Your task to perform on an android device: Open calendar and show me the first week of next month Image 0: 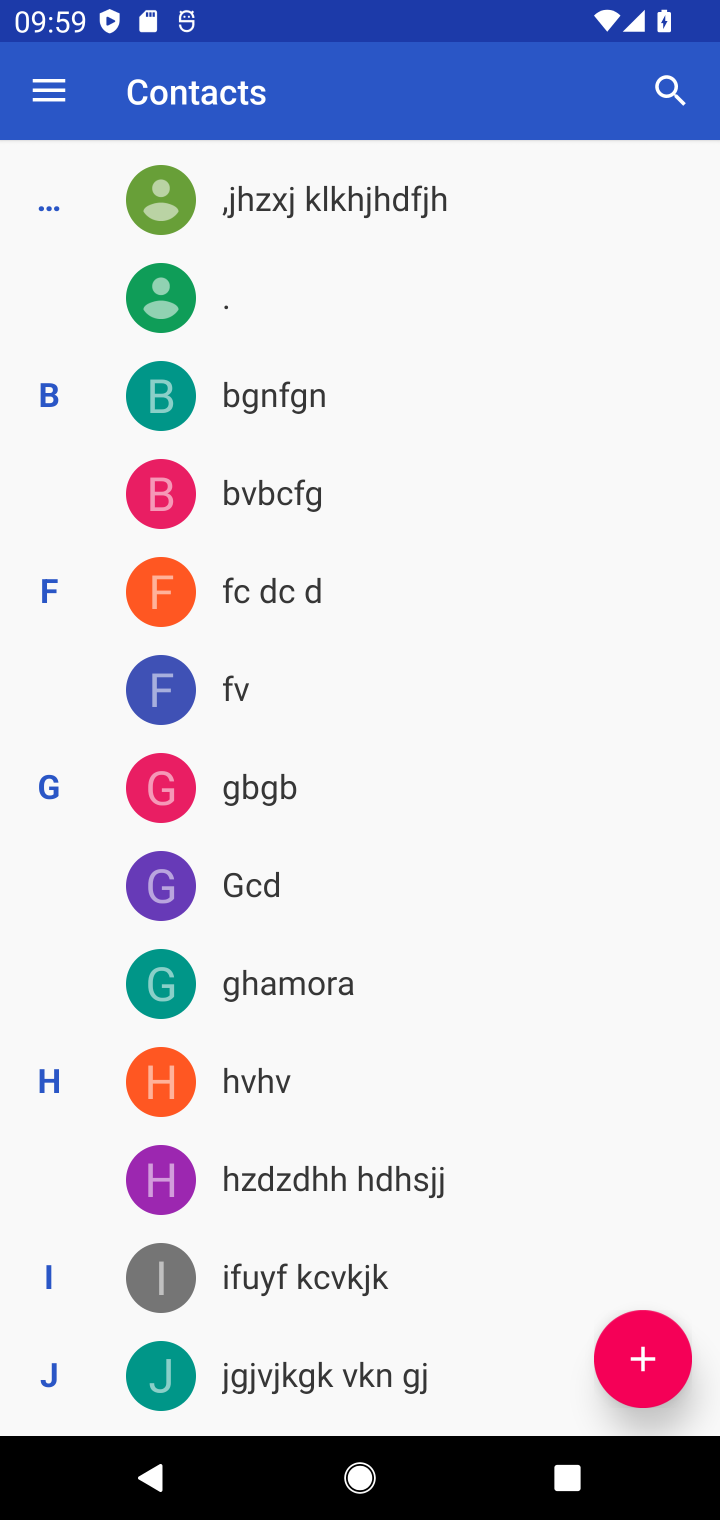
Step 0: press home button
Your task to perform on an android device: Open calendar and show me the first week of next month Image 1: 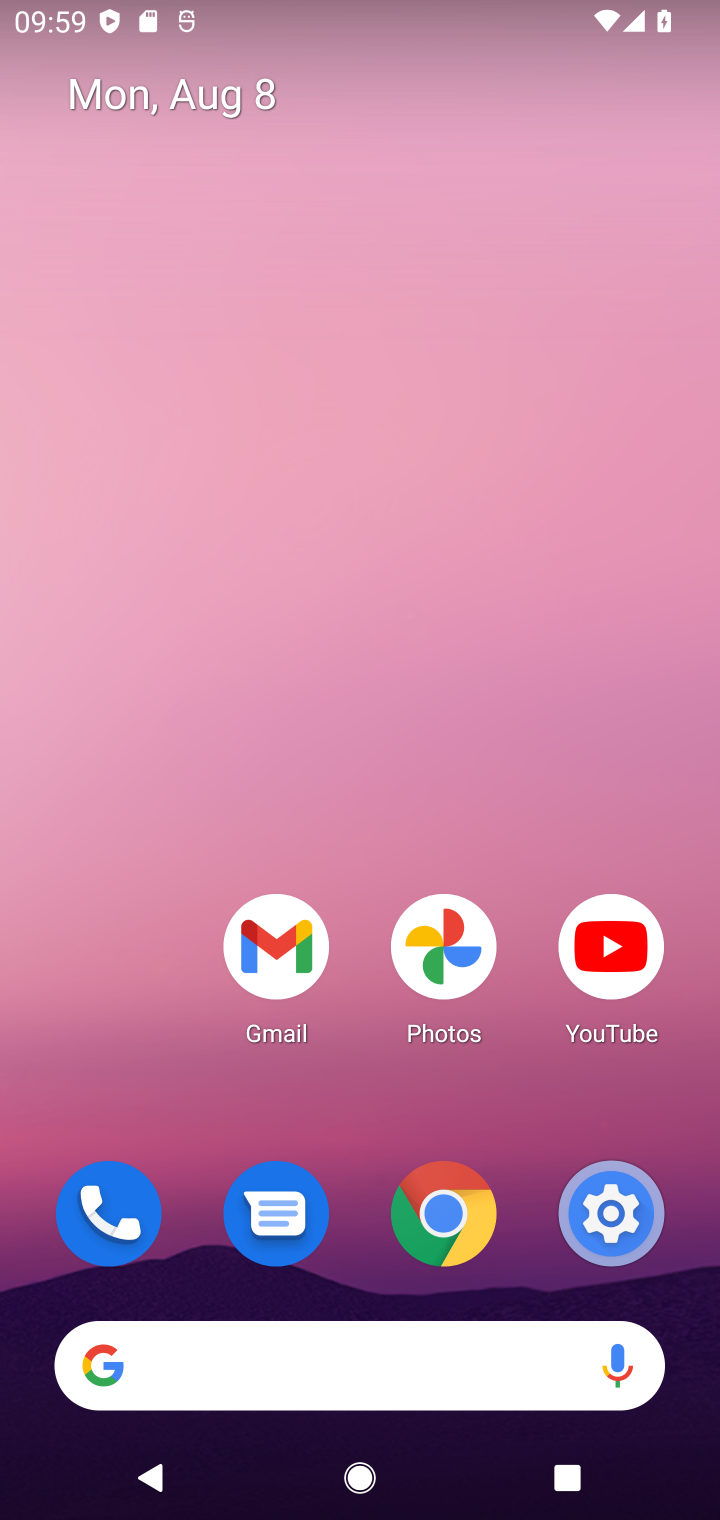
Step 1: drag from (400, 1126) to (309, 453)
Your task to perform on an android device: Open calendar and show me the first week of next month Image 2: 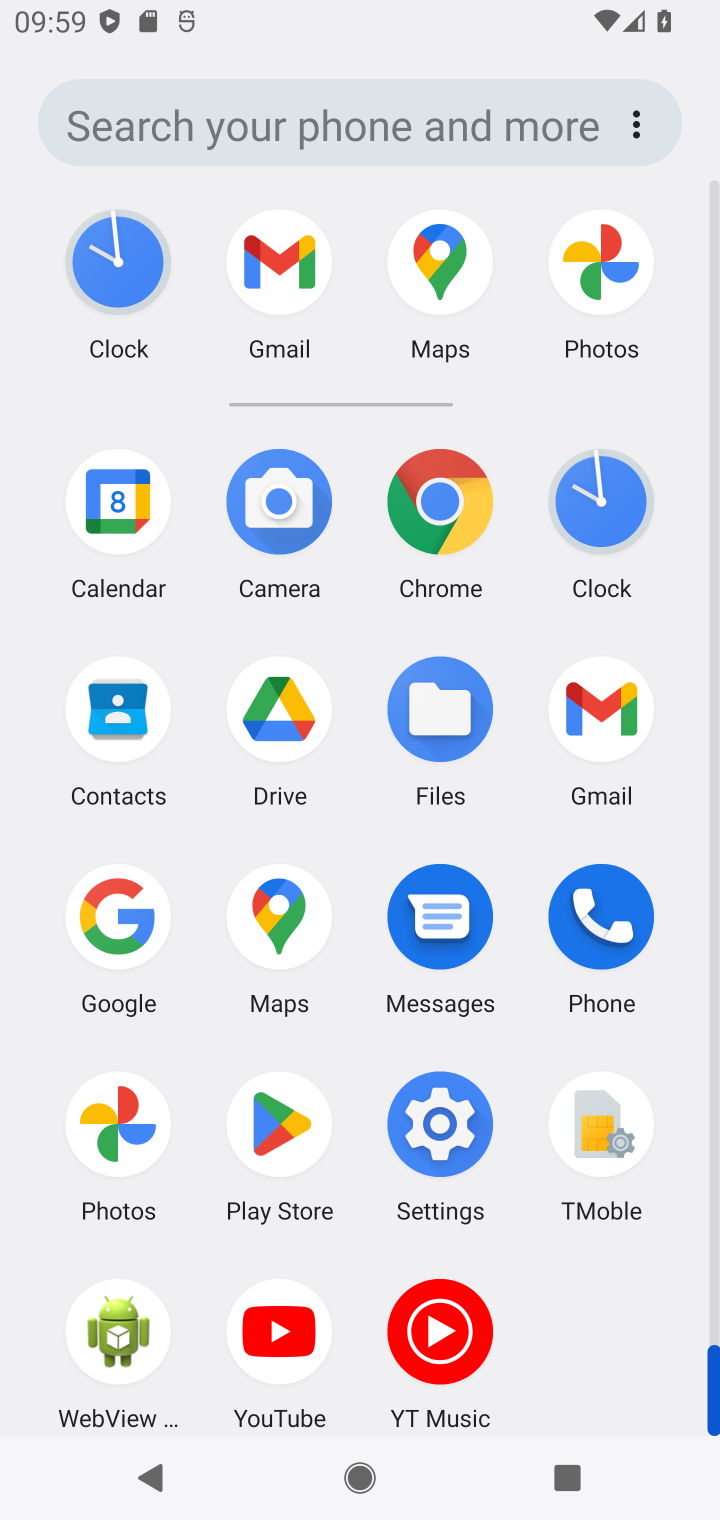
Step 2: click (153, 539)
Your task to perform on an android device: Open calendar and show me the first week of next month Image 3: 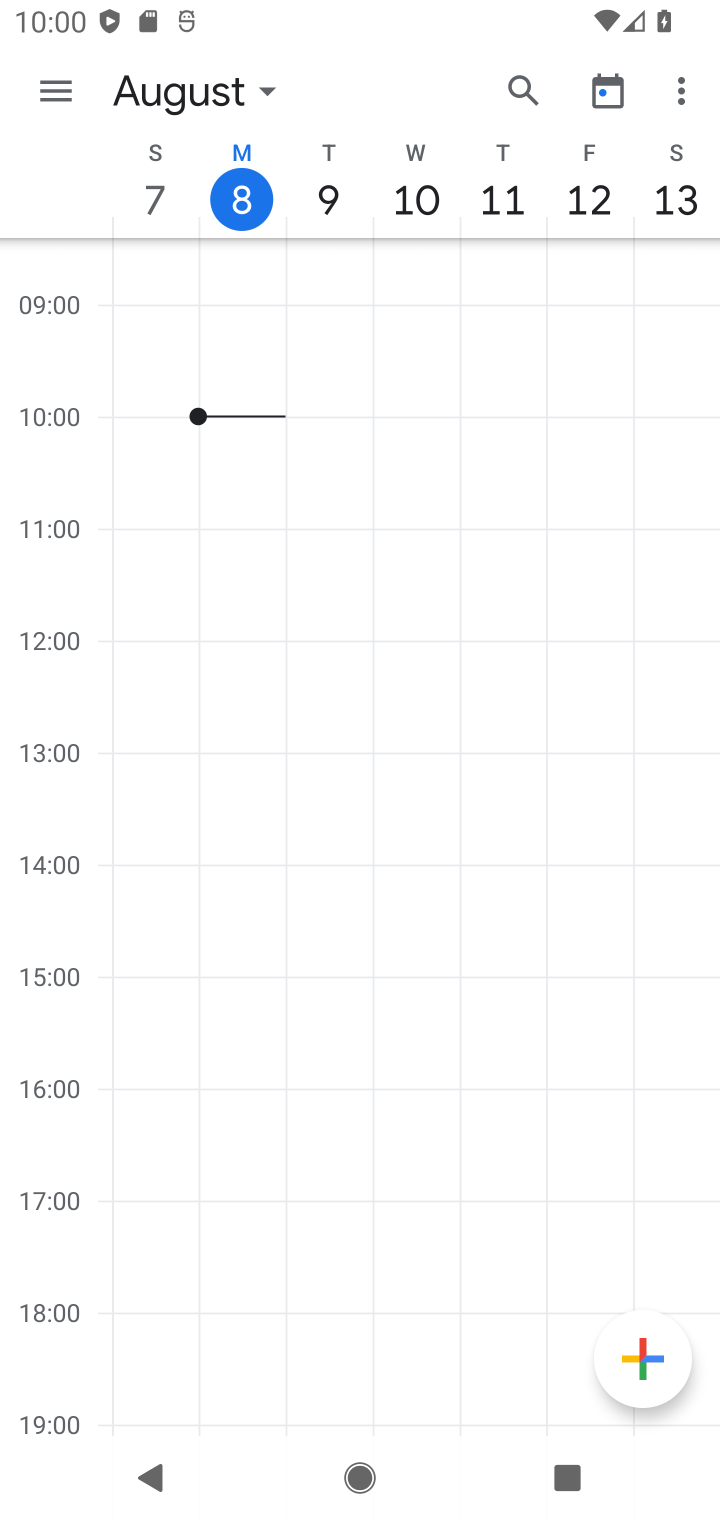
Step 3: click (285, 96)
Your task to perform on an android device: Open calendar and show me the first week of next month Image 4: 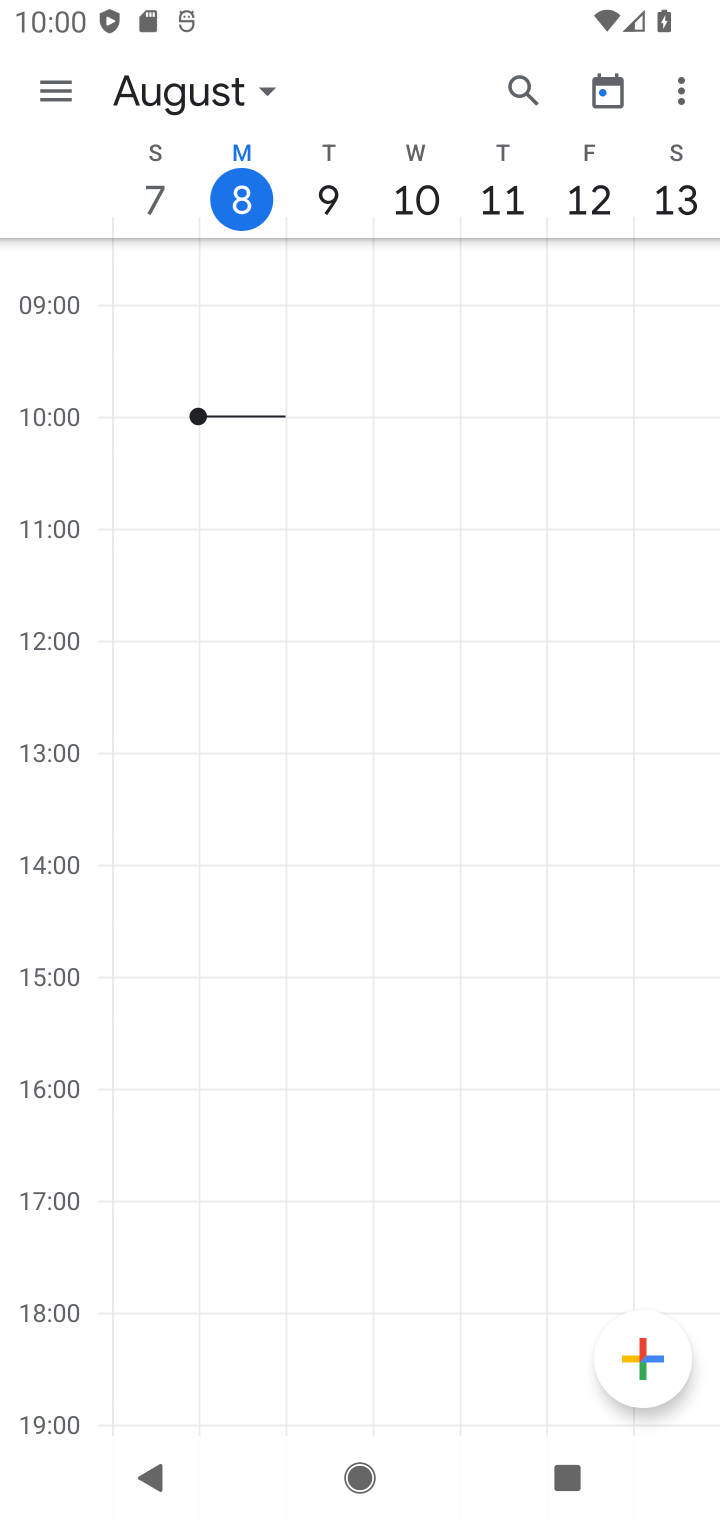
Step 4: click (259, 82)
Your task to perform on an android device: Open calendar and show me the first week of next month Image 5: 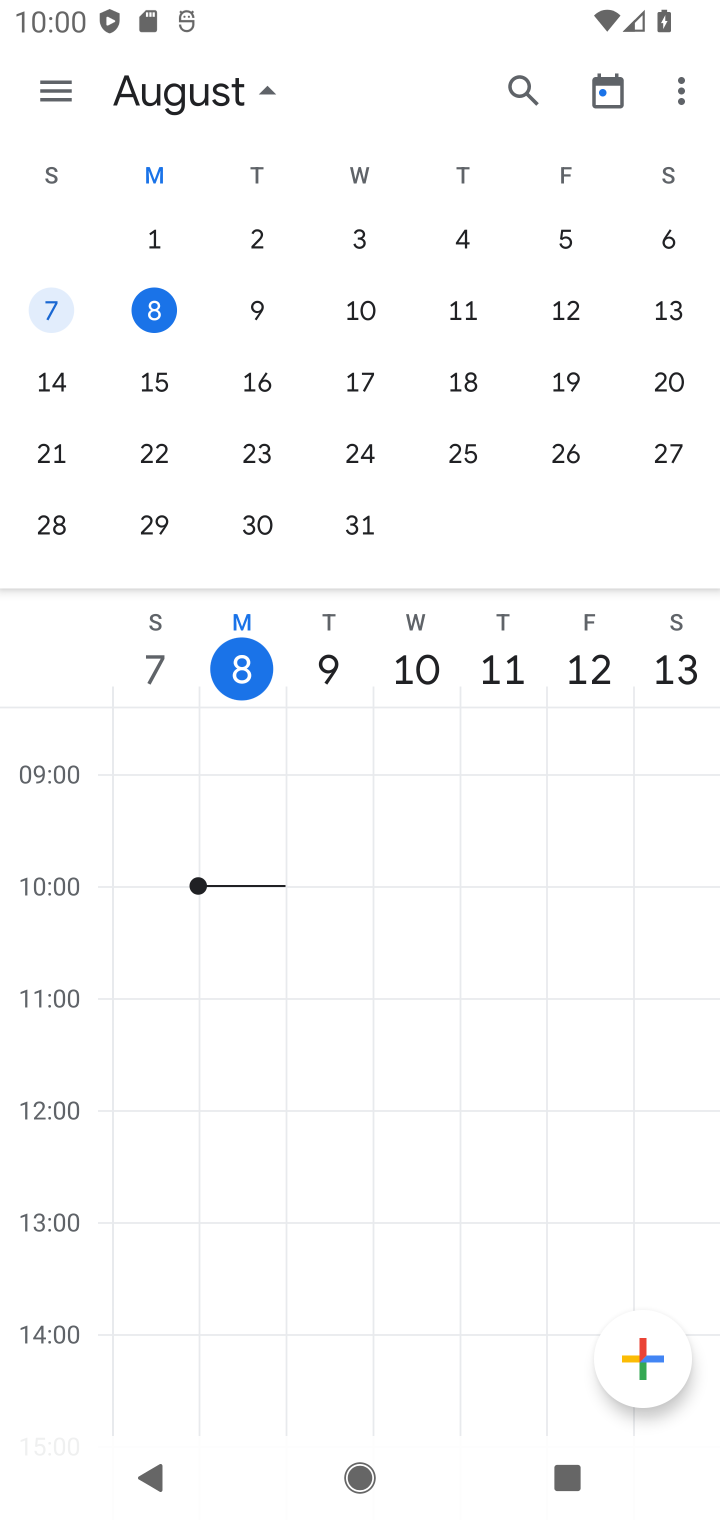
Step 5: drag from (630, 370) to (0, 465)
Your task to perform on an android device: Open calendar and show me the first week of next month Image 6: 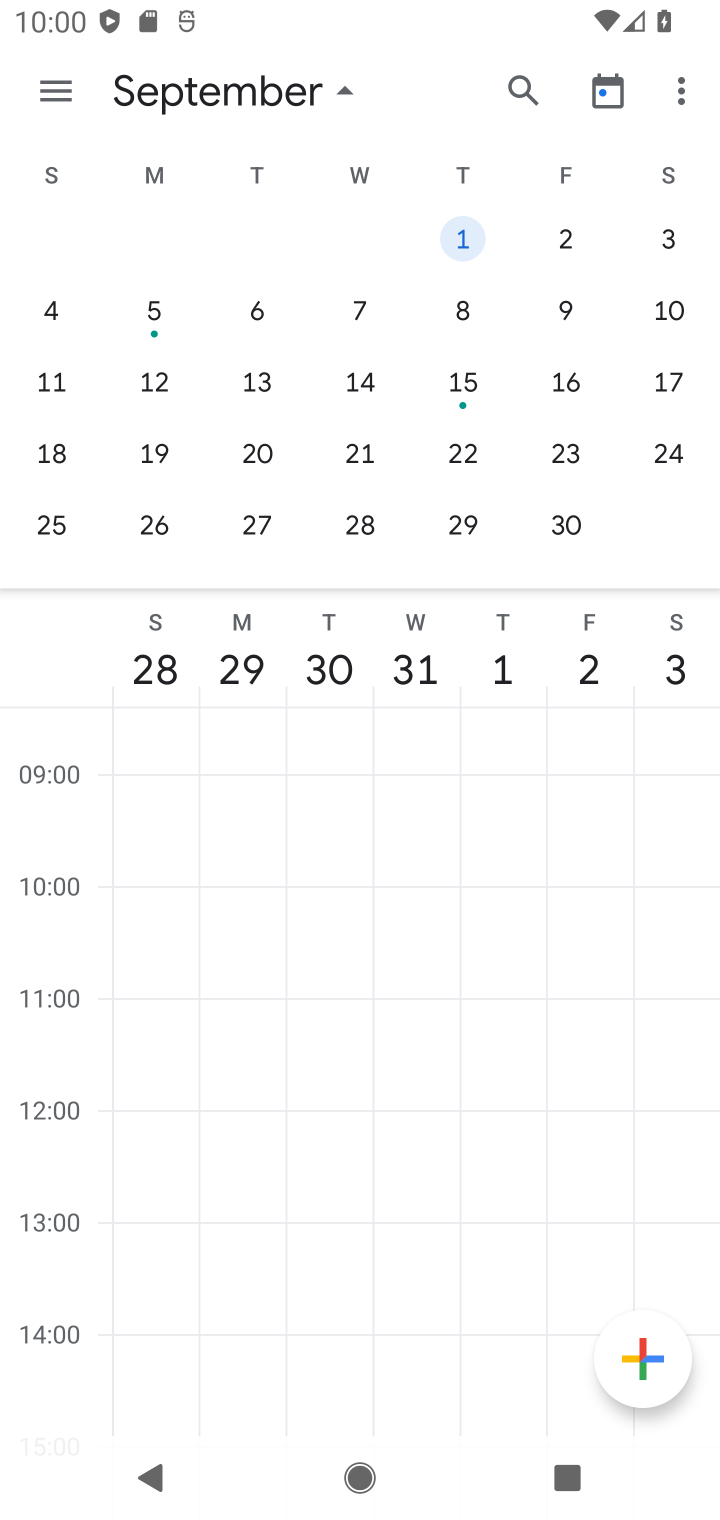
Step 6: click (40, 308)
Your task to perform on an android device: Open calendar and show me the first week of next month Image 7: 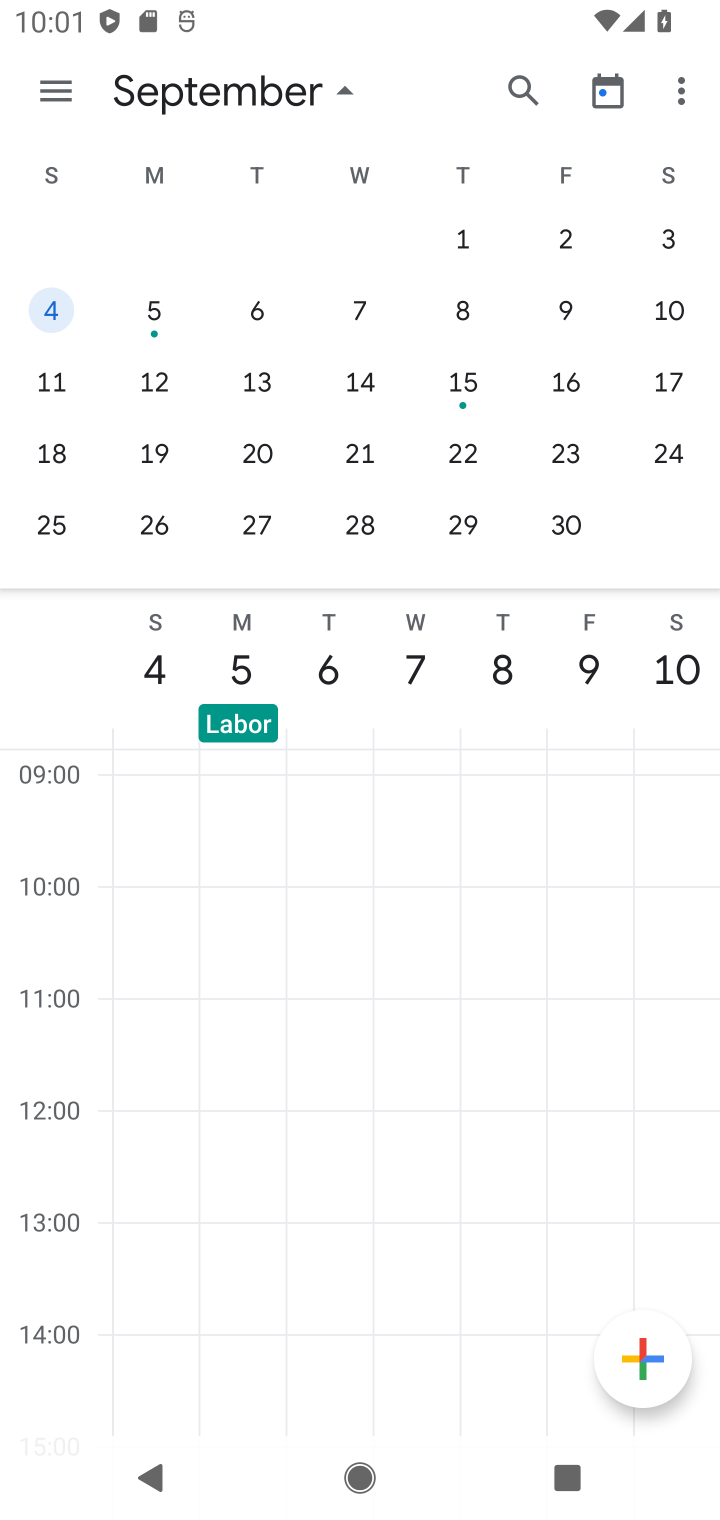
Step 7: click (328, 80)
Your task to perform on an android device: Open calendar and show me the first week of next month Image 8: 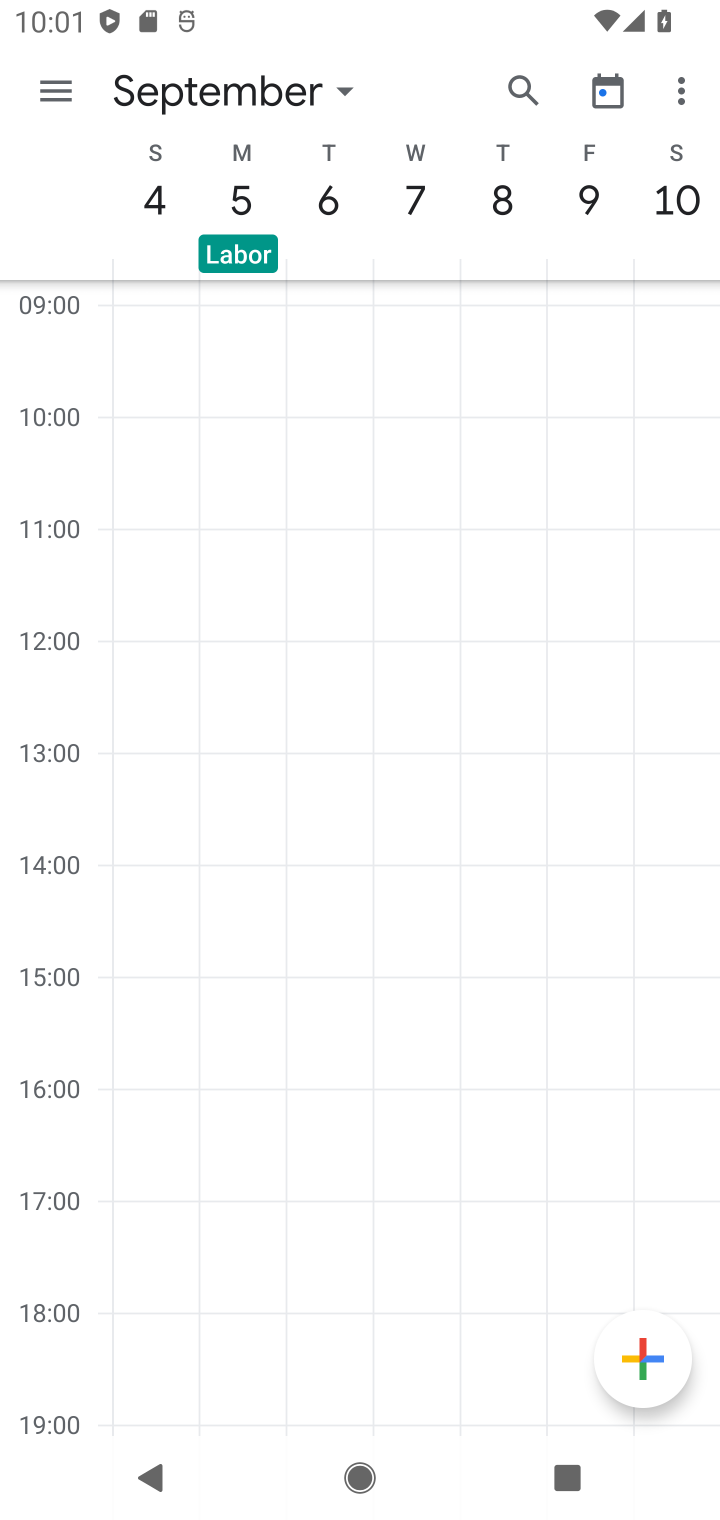
Step 8: task complete